Your task to perform on an android device: open app "VLC for Android" (install if not already installed) and go to login screen Image 0: 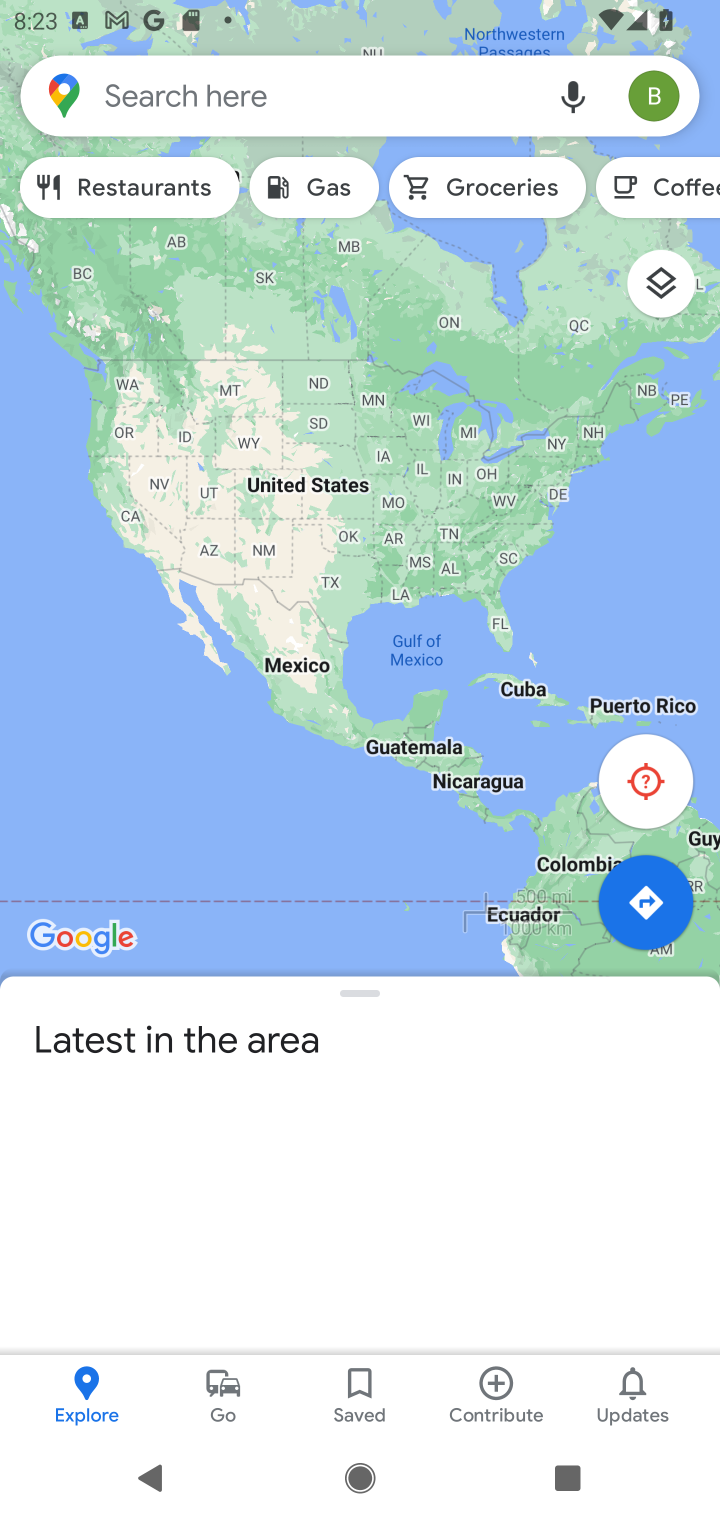
Step 0: press home button
Your task to perform on an android device: open app "VLC for Android" (install if not already installed) and go to login screen Image 1: 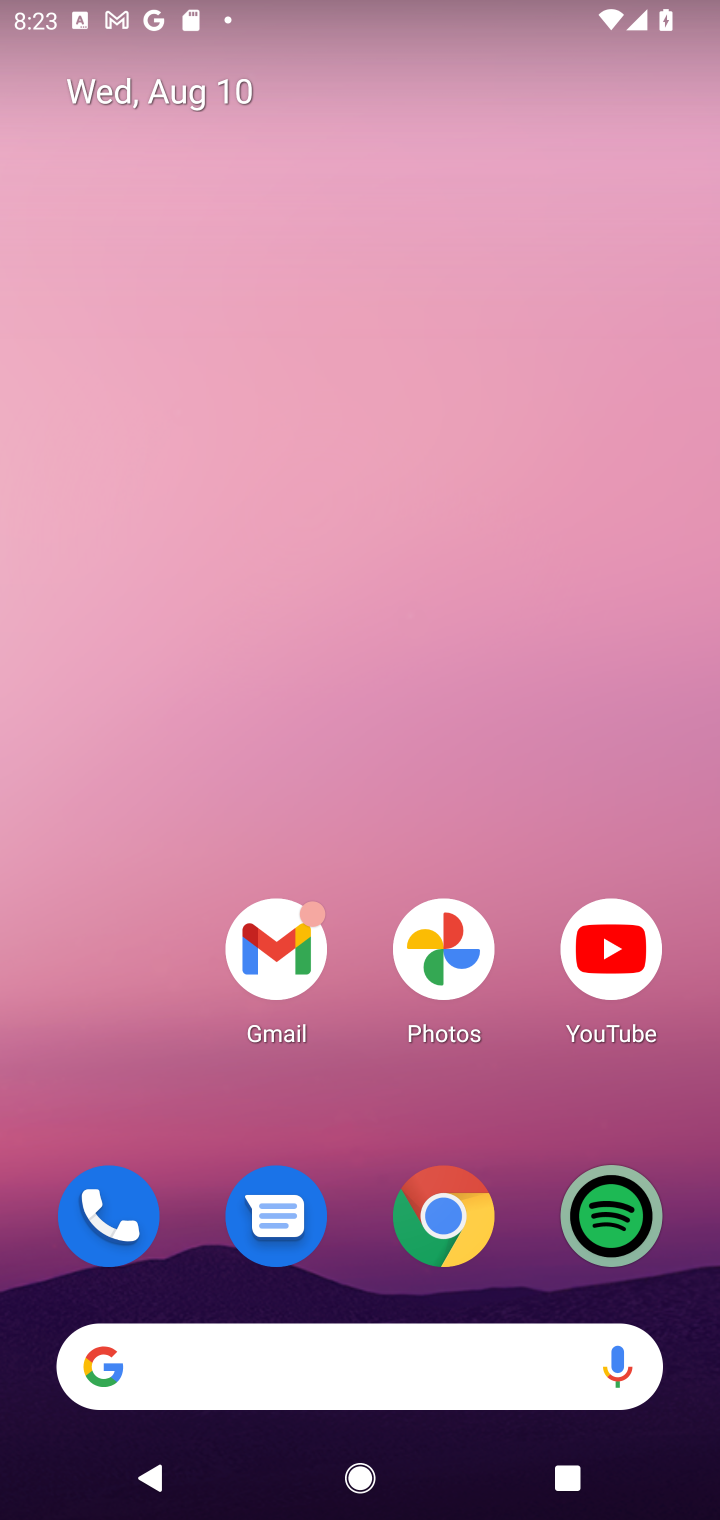
Step 1: drag from (114, 883) to (312, 155)
Your task to perform on an android device: open app "VLC for Android" (install if not already installed) and go to login screen Image 2: 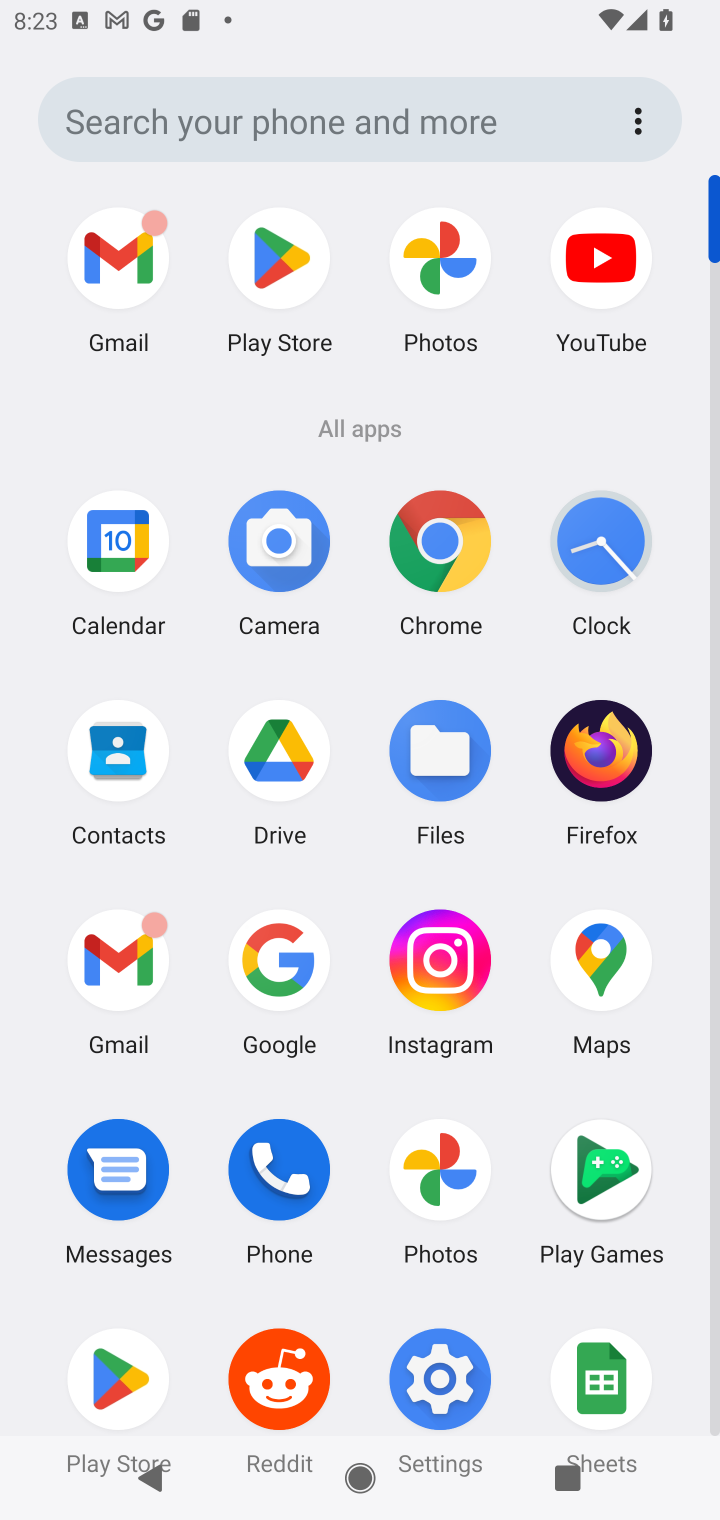
Step 2: click (261, 271)
Your task to perform on an android device: open app "VLC for Android" (install if not already installed) and go to login screen Image 3: 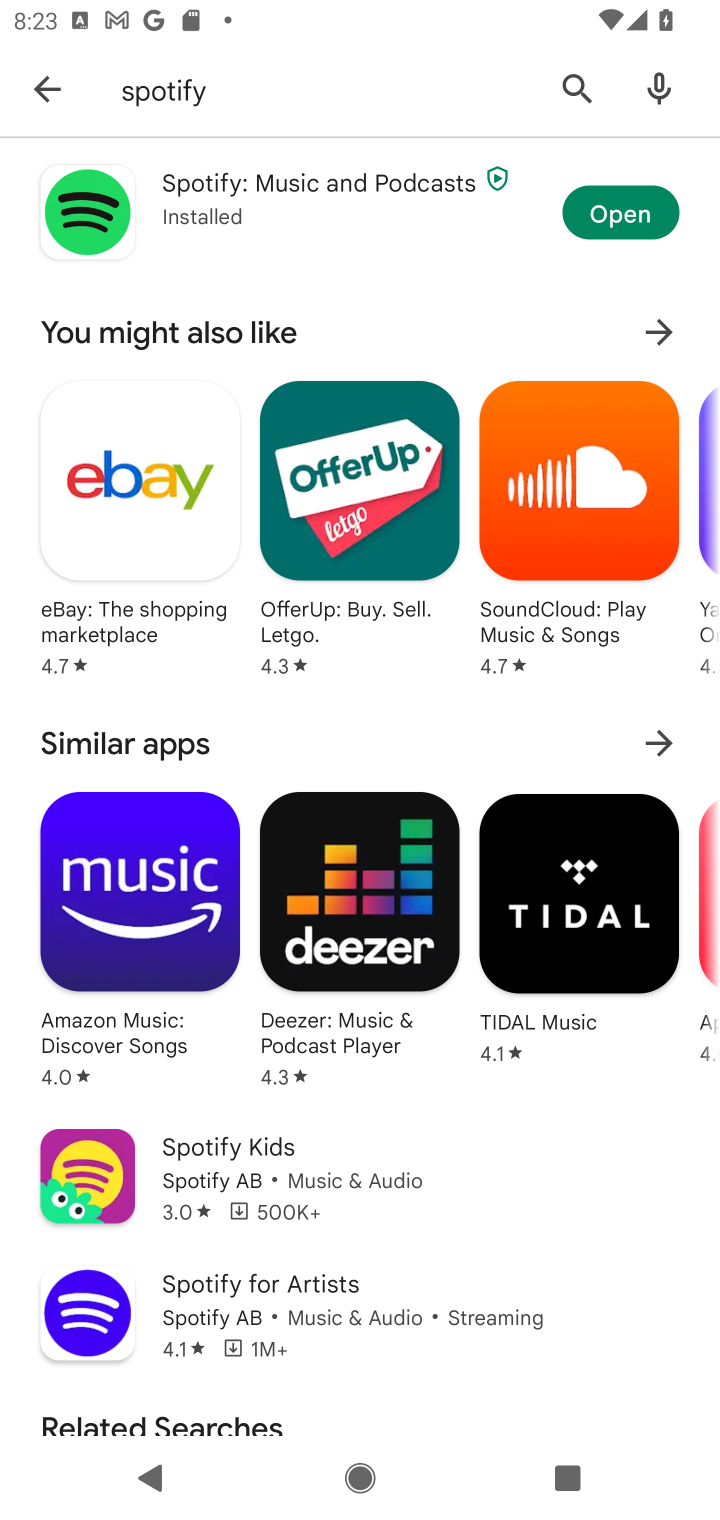
Step 3: click (59, 72)
Your task to perform on an android device: open app "VLC for Android" (install if not already installed) and go to login screen Image 4: 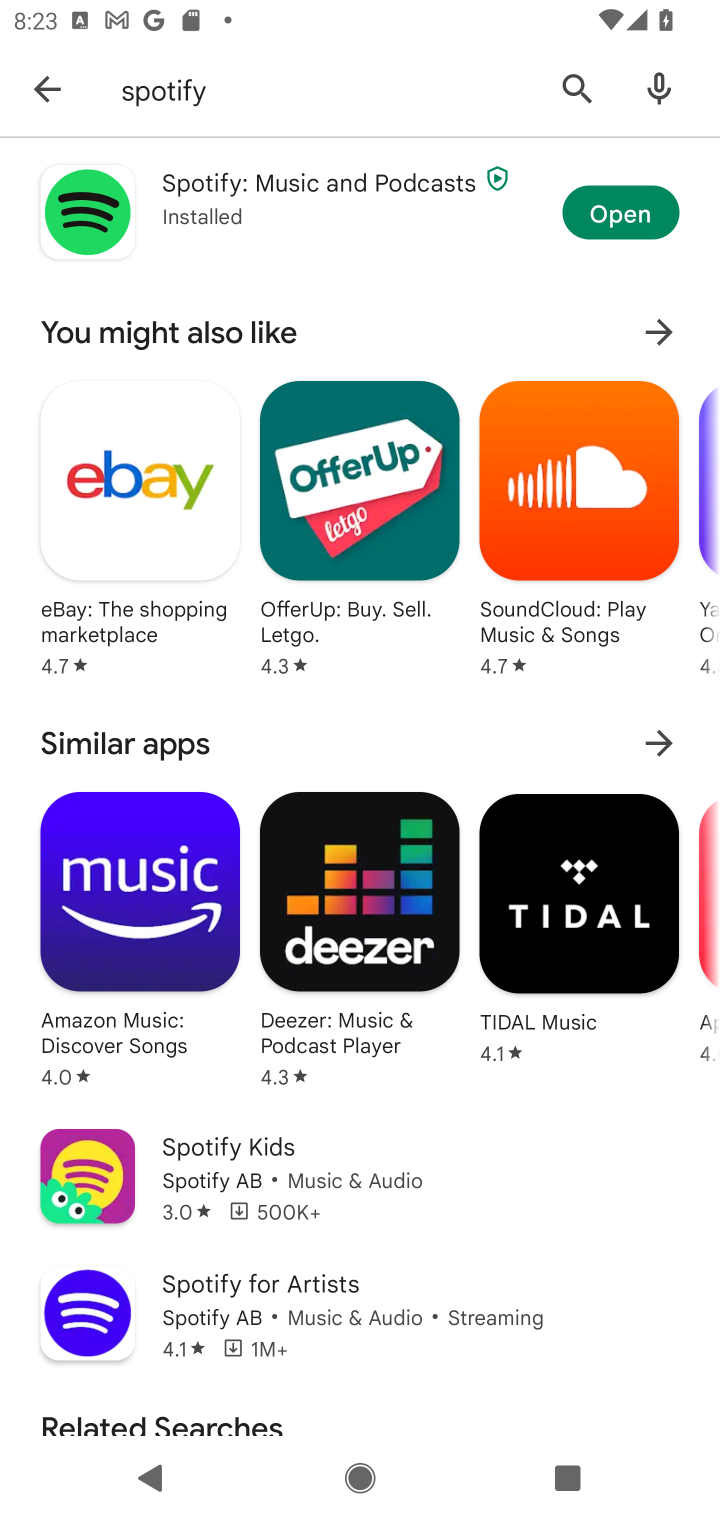
Step 4: click (59, 72)
Your task to perform on an android device: open app "VLC for Android" (install if not already installed) and go to login screen Image 5: 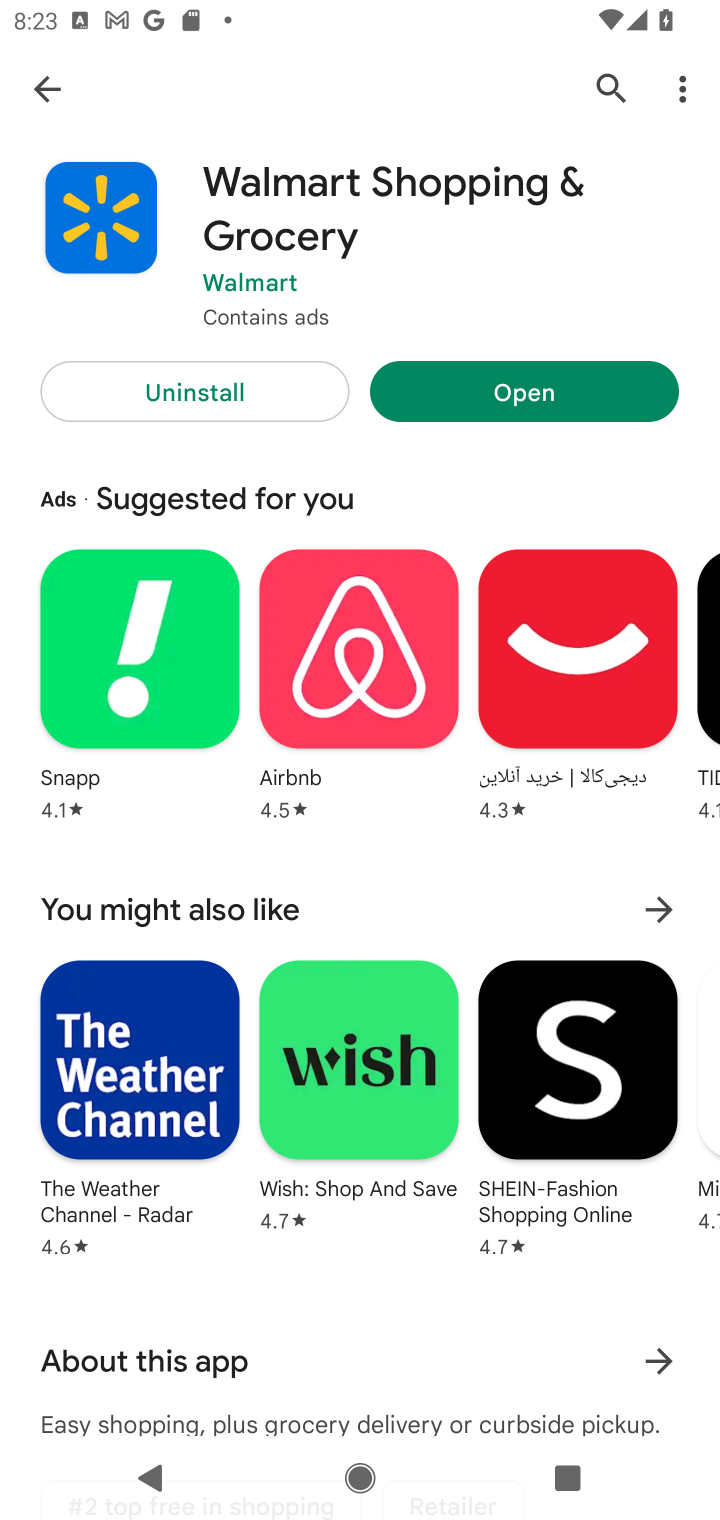
Step 5: click (613, 66)
Your task to perform on an android device: open app "VLC for Android" (install if not already installed) and go to login screen Image 6: 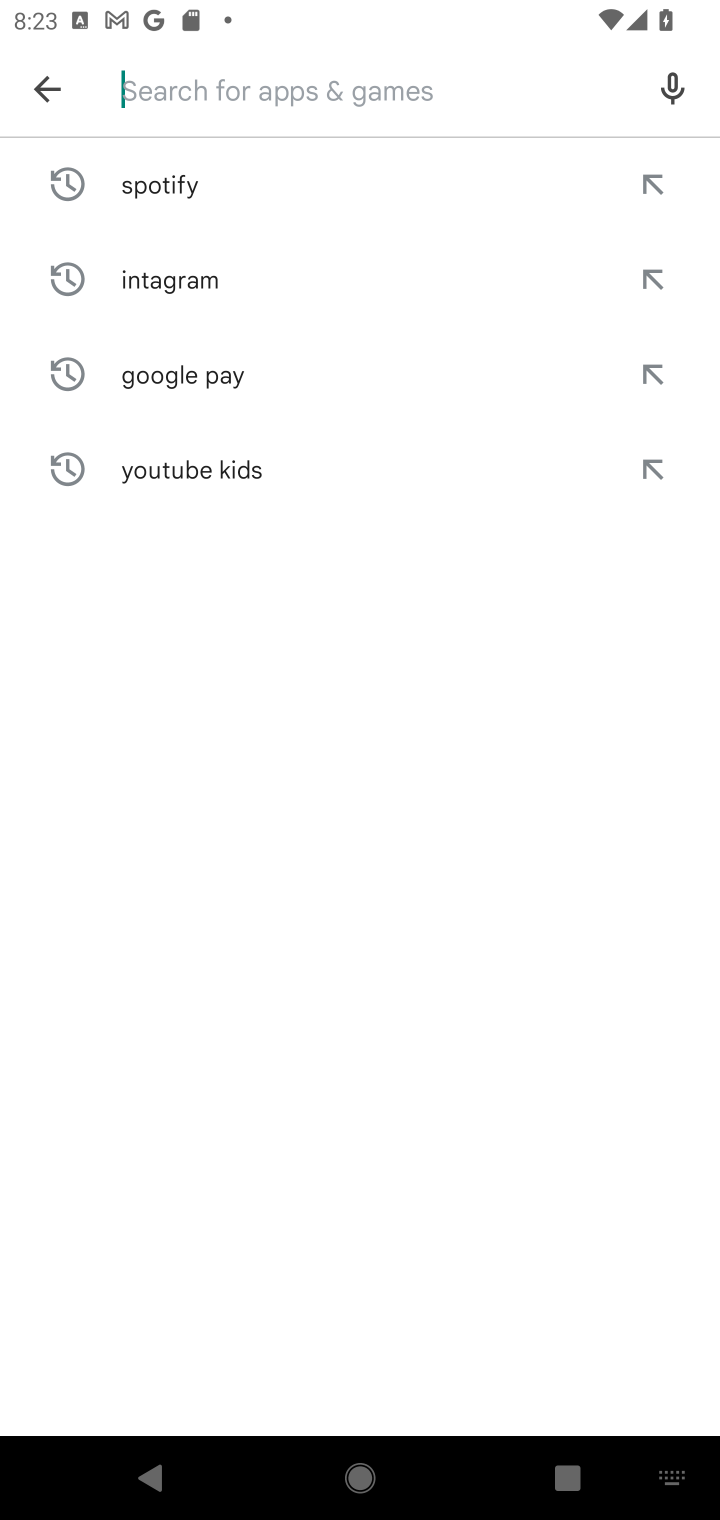
Step 6: click (373, 104)
Your task to perform on an android device: open app "VLC for Android" (install if not already installed) and go to login screen Image 7: 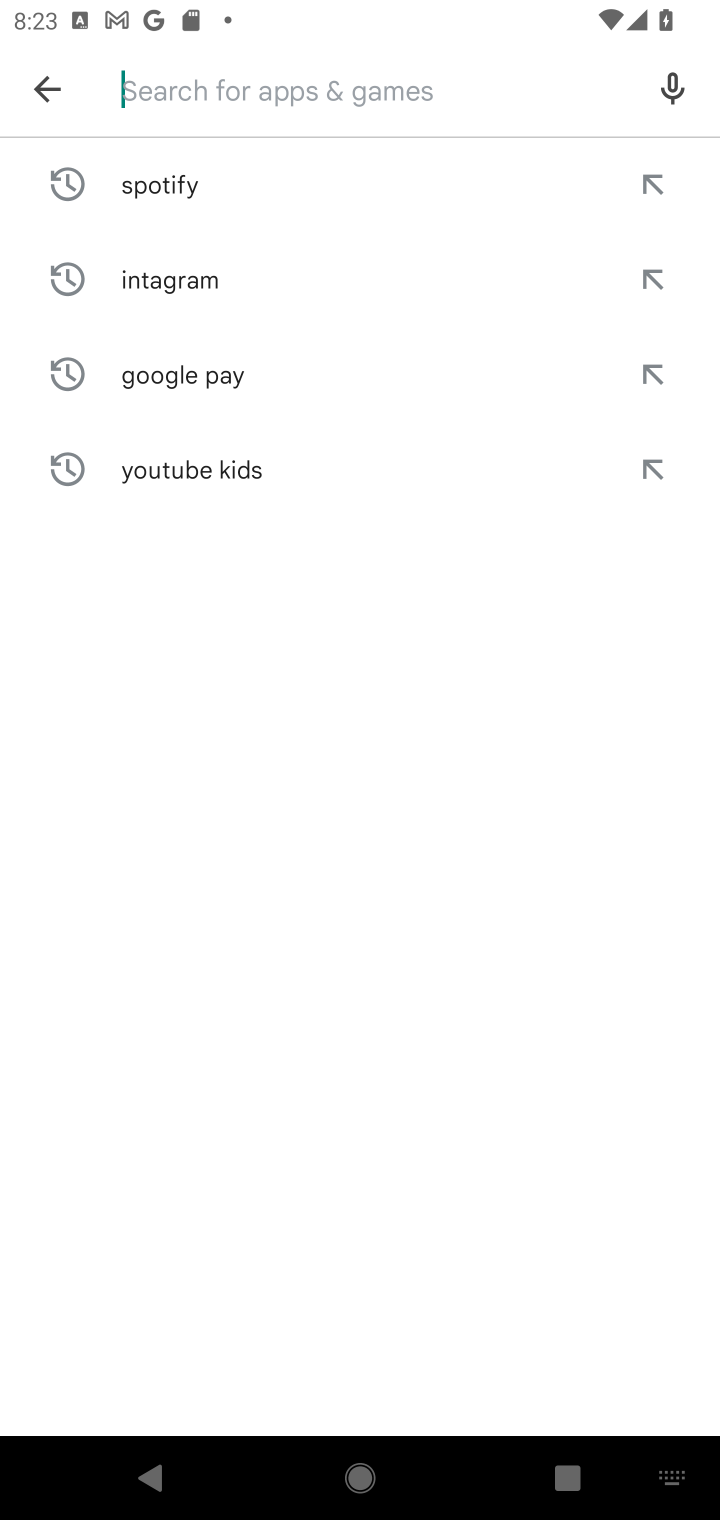
Step 7: type "vlc"
Your task to perform on an android device: open app "VLC for Android" (install if not already installed) and go to login screen Image 8: 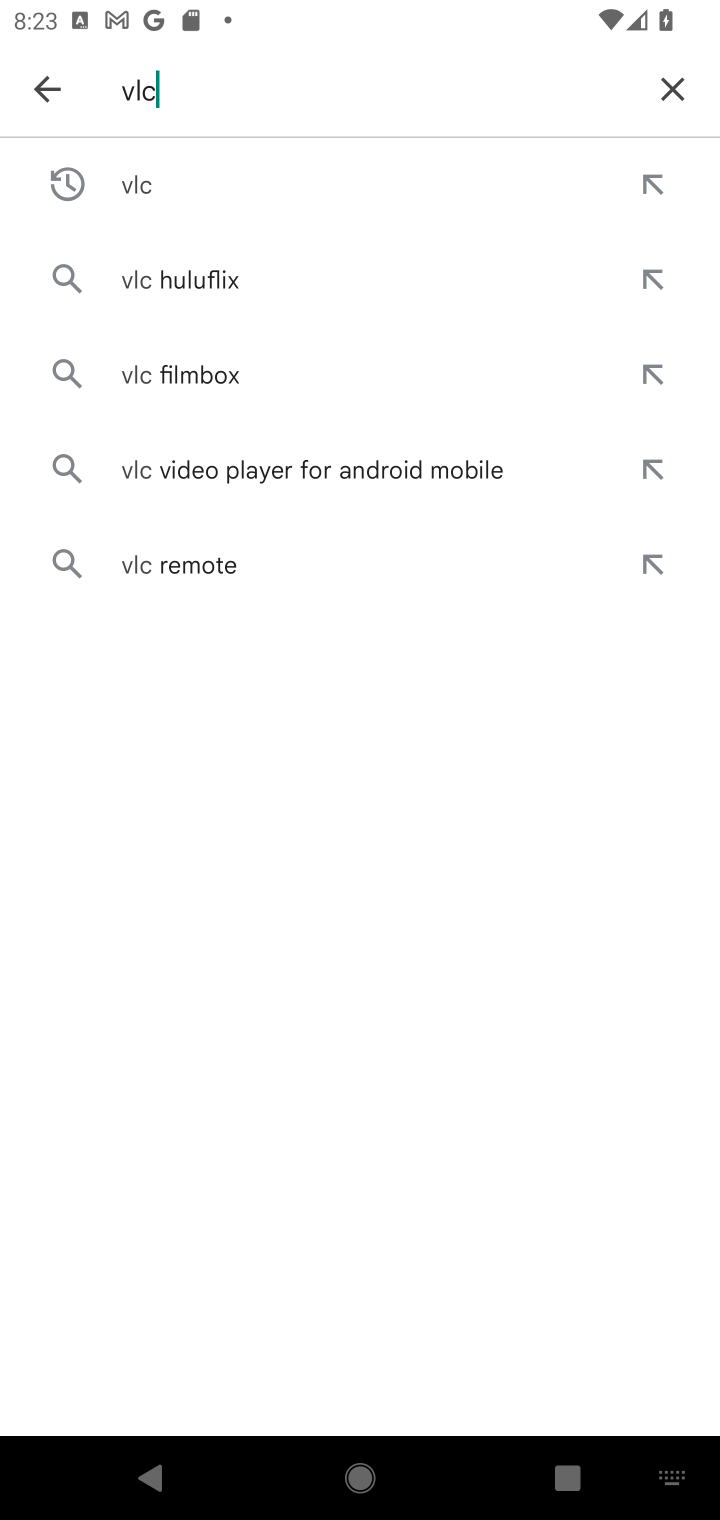
Step 8: click (288, 186)
Your task to perform on an android device: open app "VLC for Android" (install if not already installed) and go to login screen Image 9: 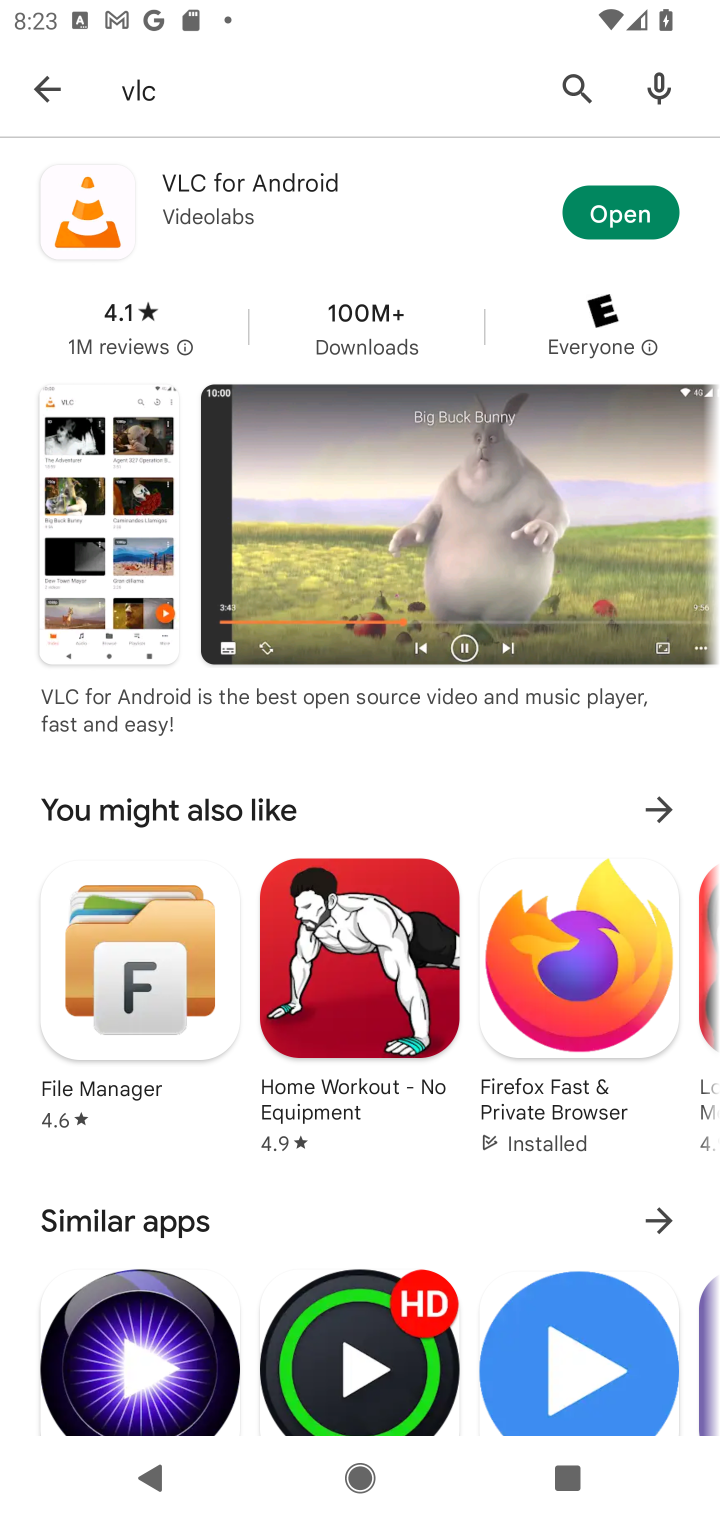
Step 9: click (146, 174)
Your task to perform on an android device: open app "VLC for Android" (install if not already installed) and go to login screen Image 10: 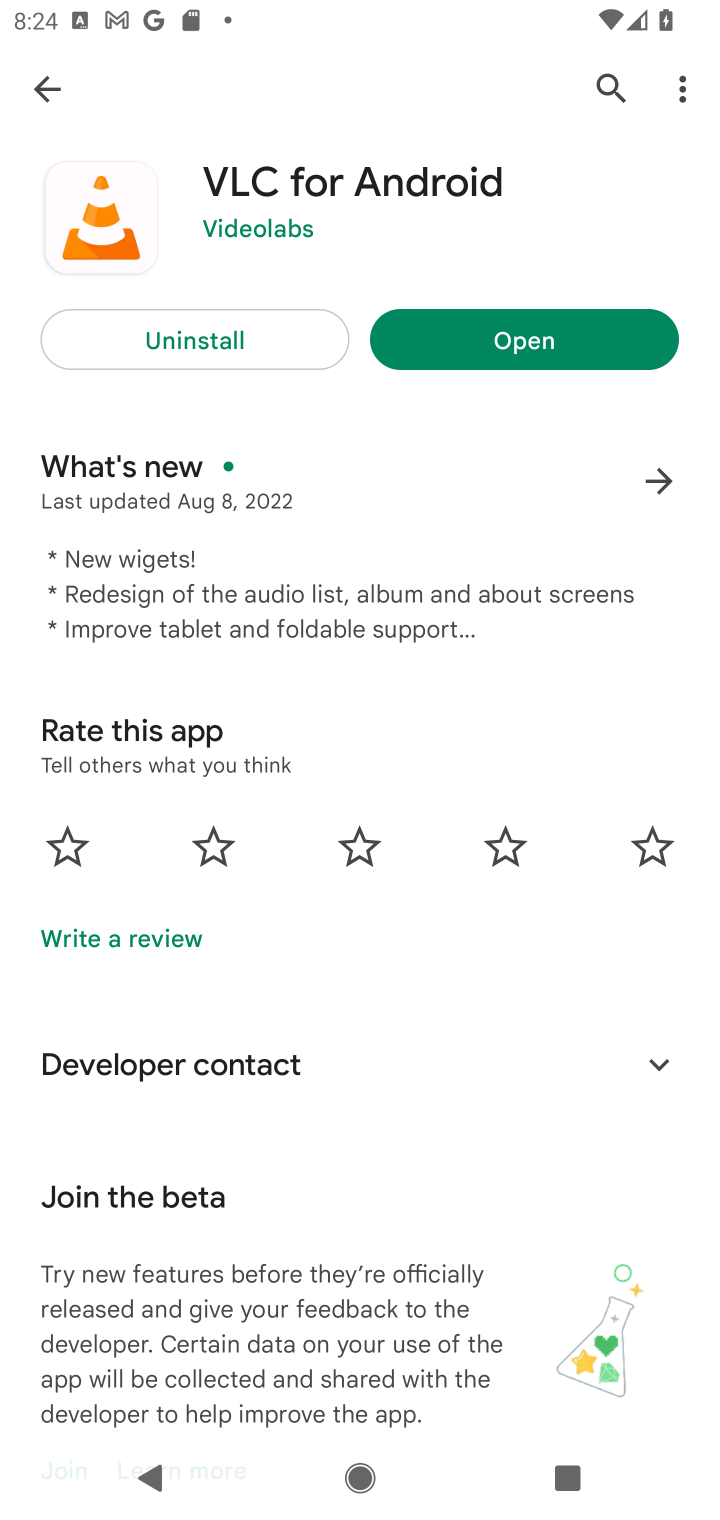
Step 10: click (547, 305)
Your task to perform on an android device: open app "VLC for Android" (install if not already installed) and go to login screen Image 11: 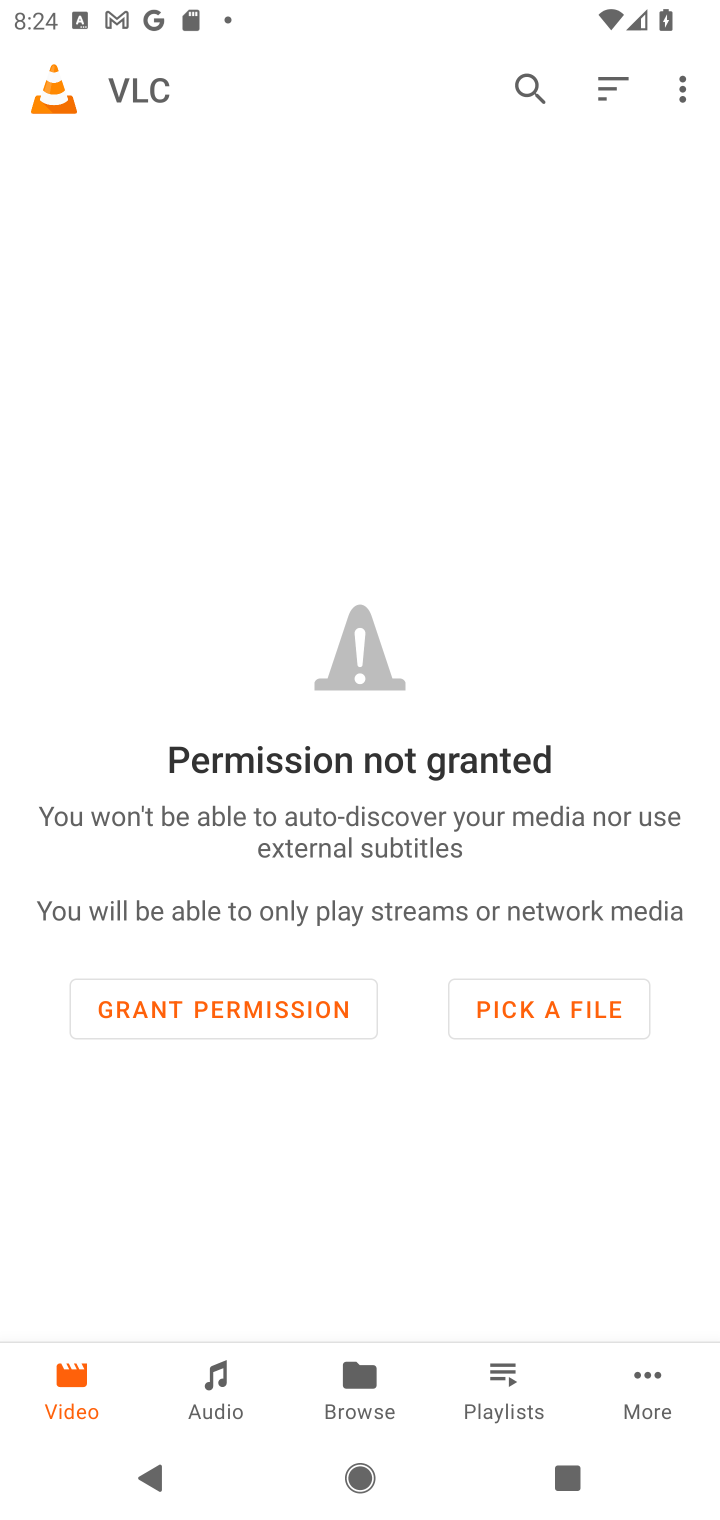
Step 11: click (37, 109)
Your task to perform on an android device: open app "VLC for Android" (install if not already installed) and go to login screen Image 12: 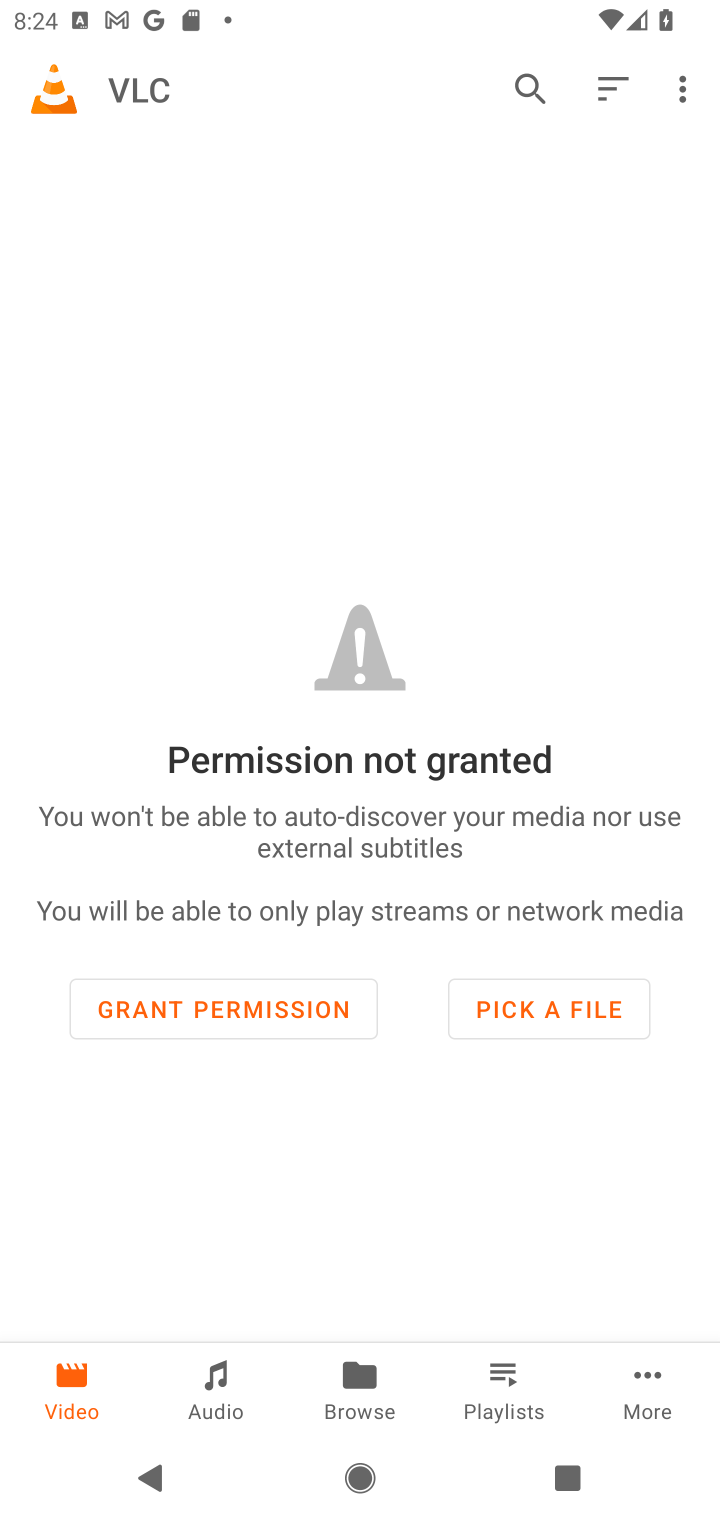
Step 12: click (124, 92)
Your task to perform on an android device: open app "VLC for Android" (install if not already installed) and go to login screen Image 13: 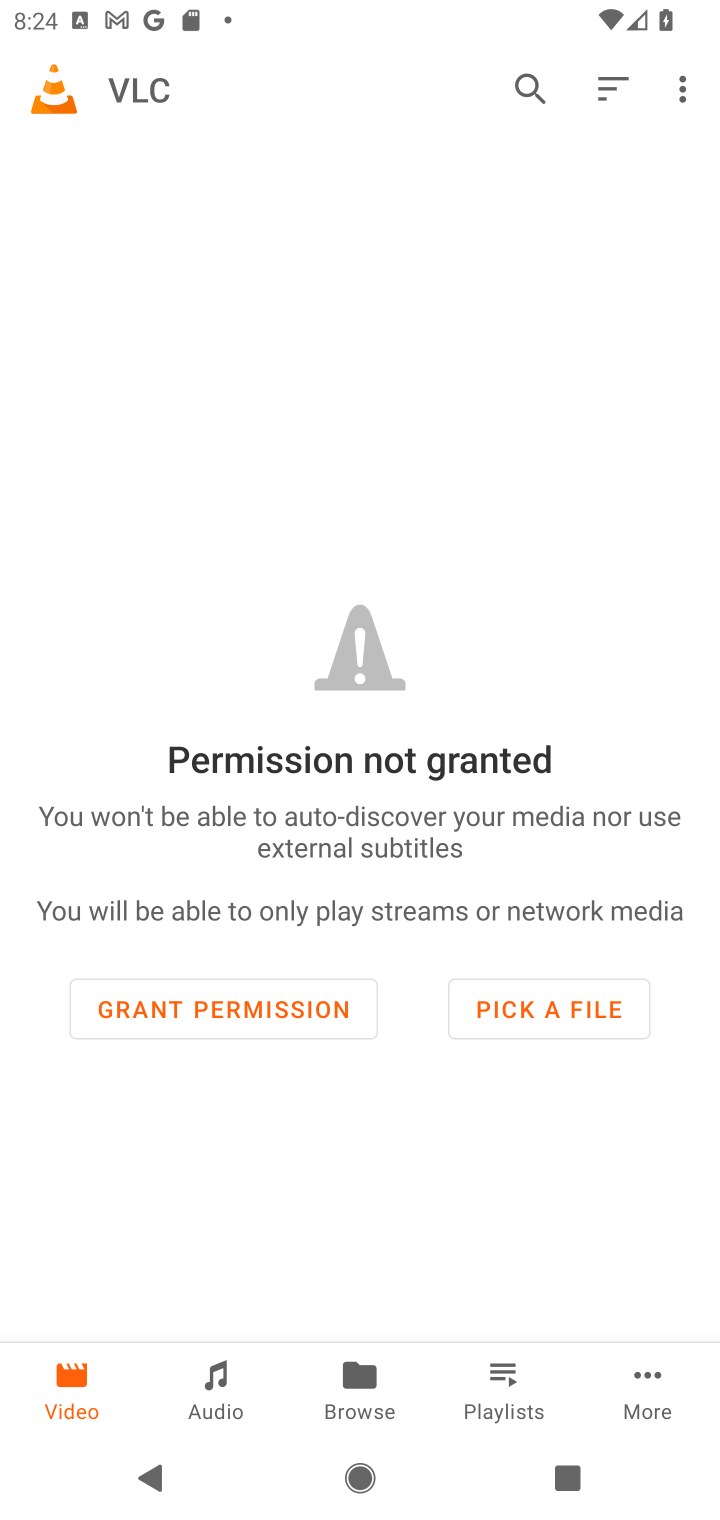
Step 13: click (653, 1390)
Your task to perform on an android device: open app "VLC for Android" (install if not already installed) and go to login screen Image 14: 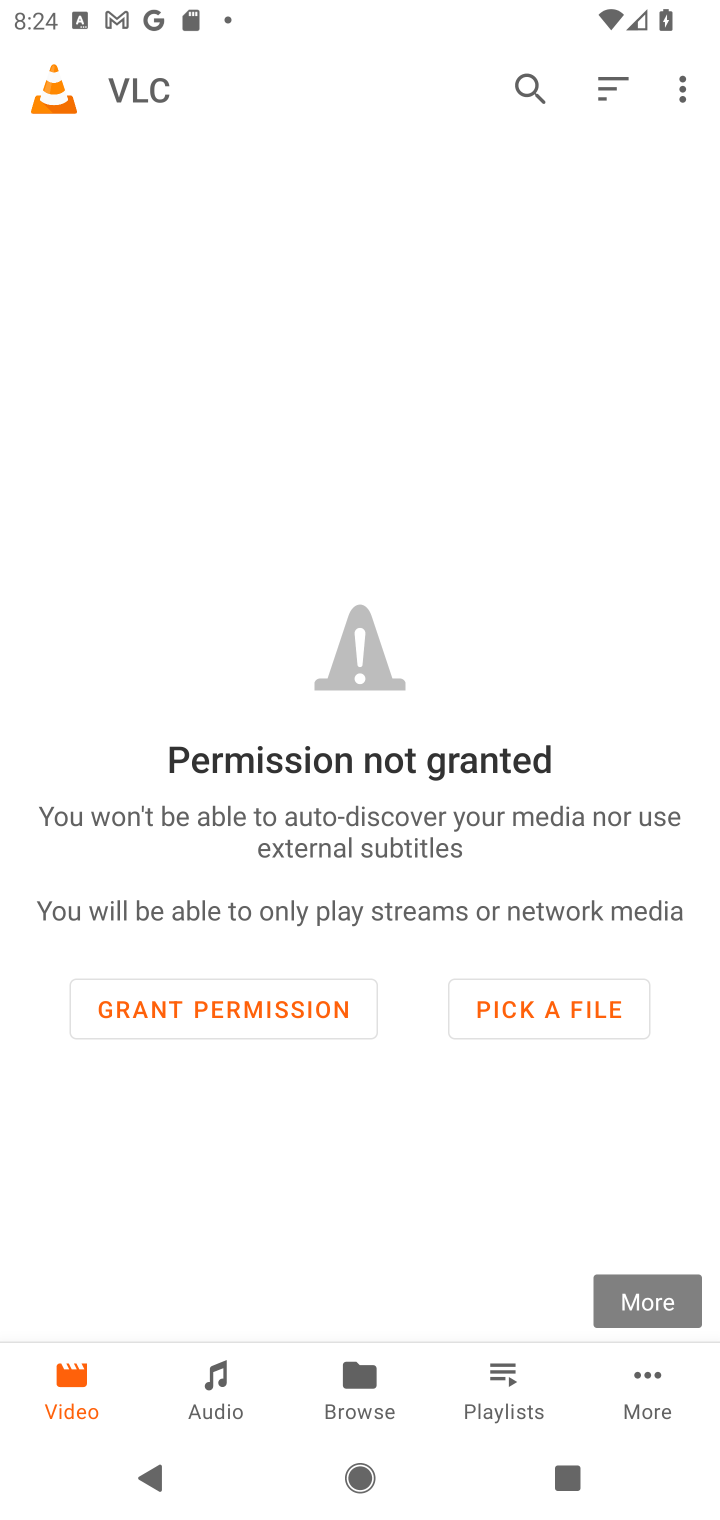
Step 14: click (646, 1401)
Your task to perform on an android device: open app "VLC for Android" (install if not already installed) and go to login screen Image 15: 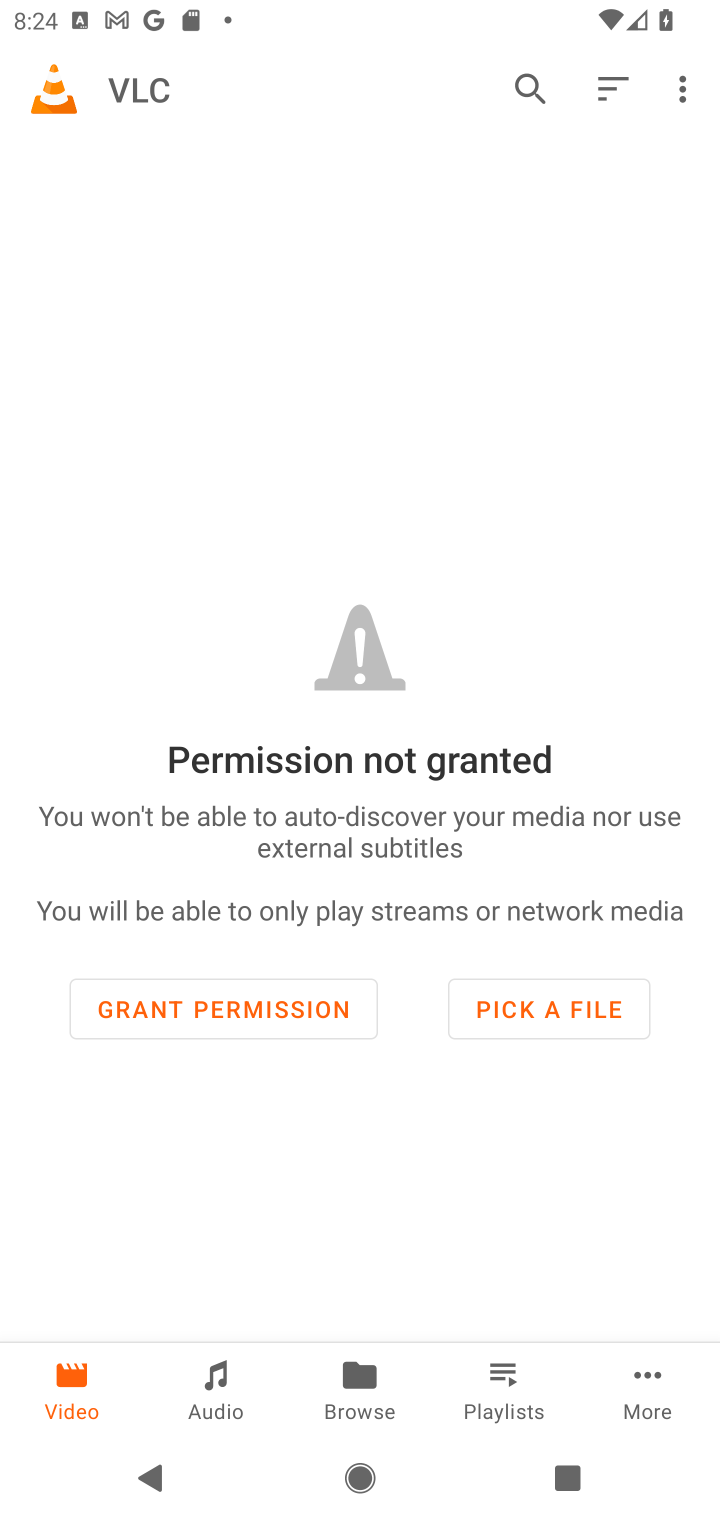
Step 15: click (652, 1388)
Your task to perform on an android device: open app "VLC for Android" (install if not already installed) and go to login screen Image 16: 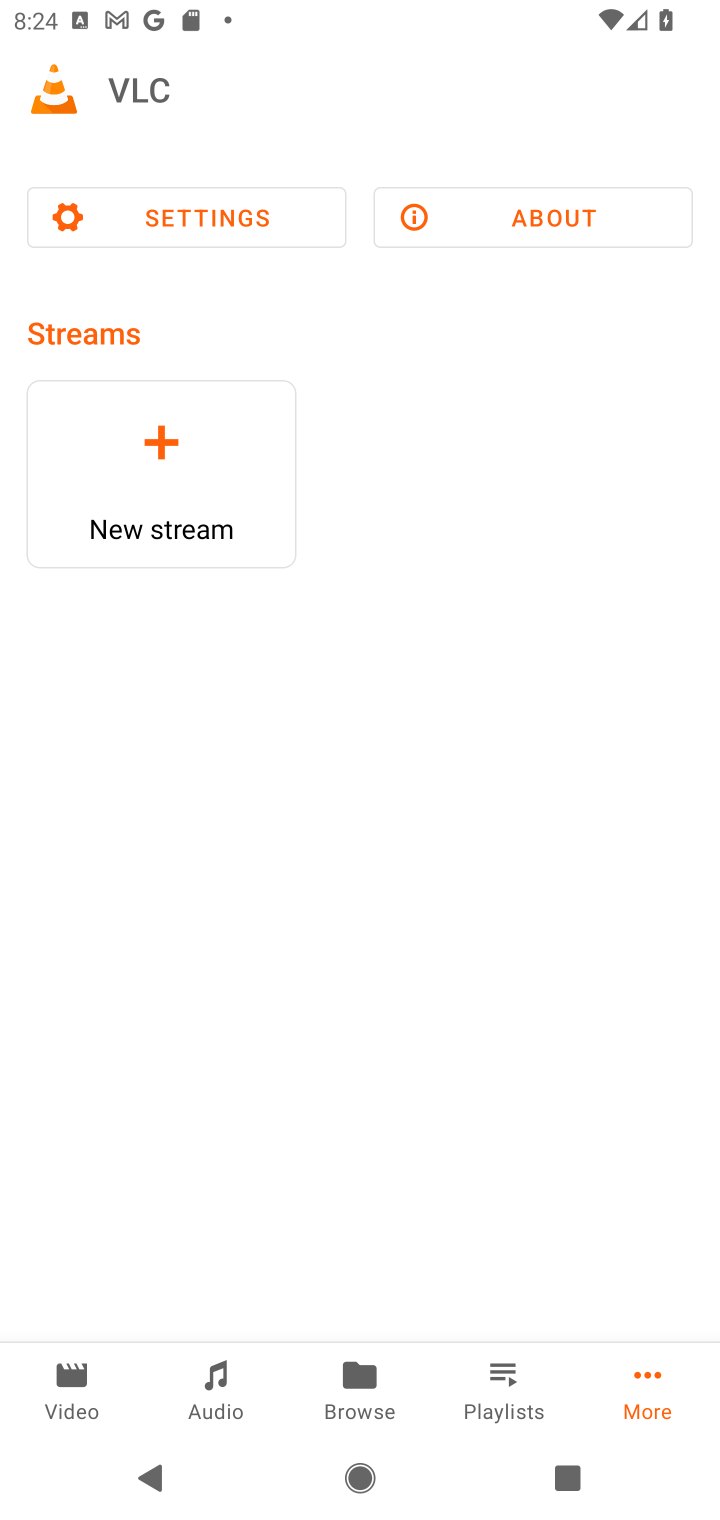
Step 16: click (97, 1386)
Your task to perform on an android device: open app "VLC for Android" (install if not already installed) and go to login screen Image 17: 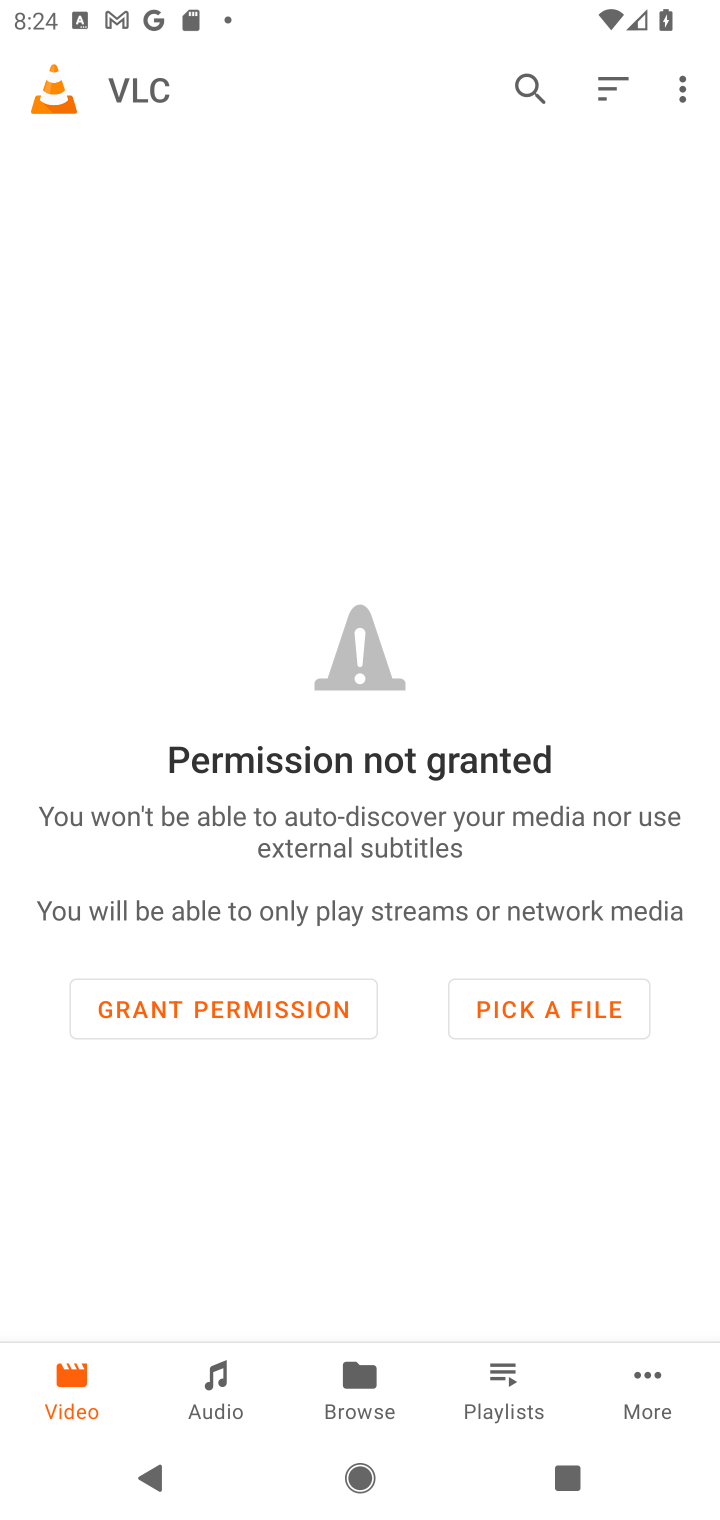
Step 17: task complete